Your task to perform on an android device: Go to eBay Image 0: 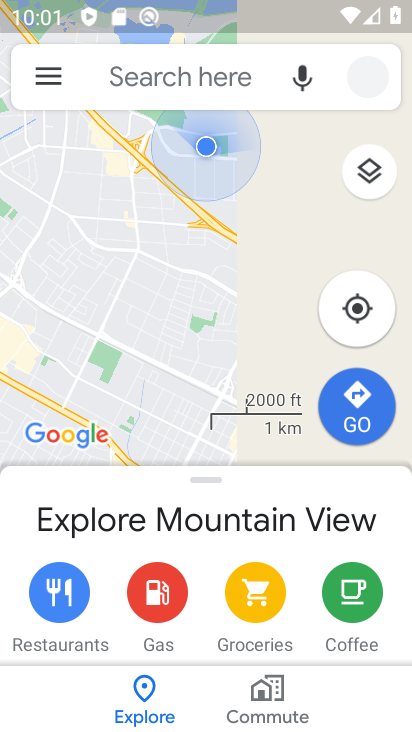
Step 0: press home button
Your task to perform on an android device: Go to eBay Image 1: 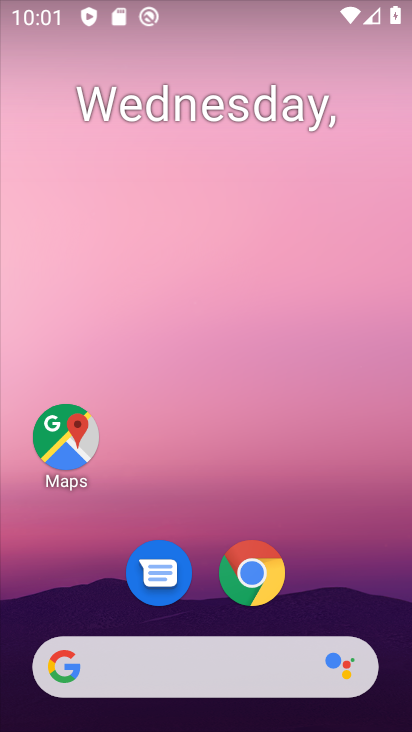
Step 1: click (248, 569)
Your task to perform on an android device: Go to eBay Image 2: 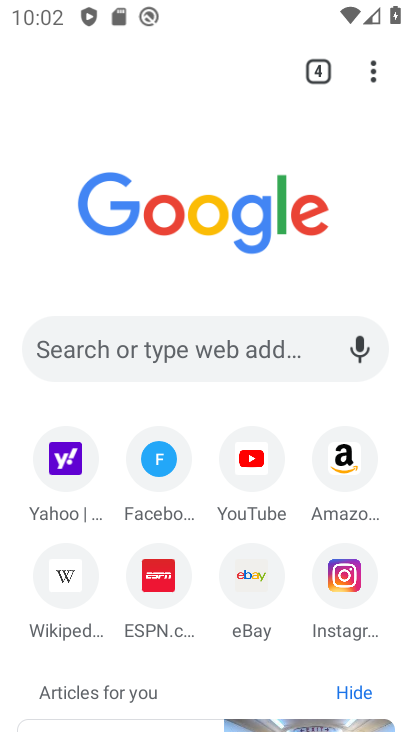
Step 2: click (244, 343)
Your task to perform on an android device: Go to eBay Image 3: 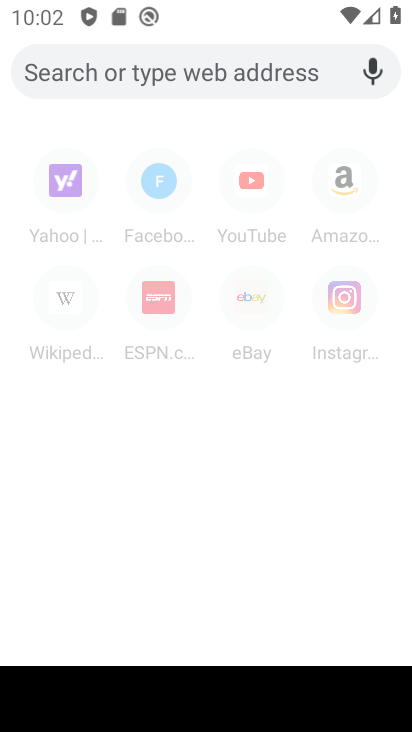
Step 3: type "eBay"
Your task to perform on an android device: Go to eBay Image 4: 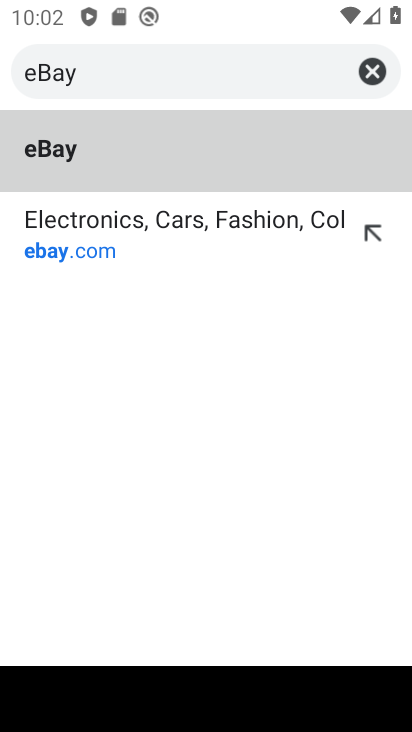
Step 4: click (108, 156)
Your task to perform on an android device: Go to eBay Image 5: 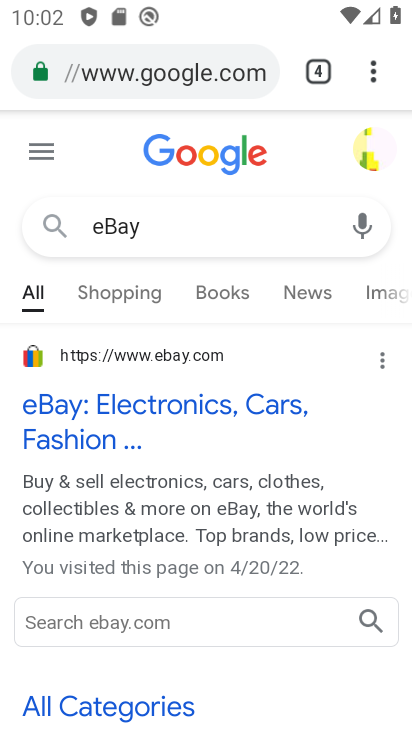
Step 5: task complete